Your task to perform on an android device: Search for "usb-c to usb-a" on costco.com, select the first entry, and add it to the cart. Image 0: 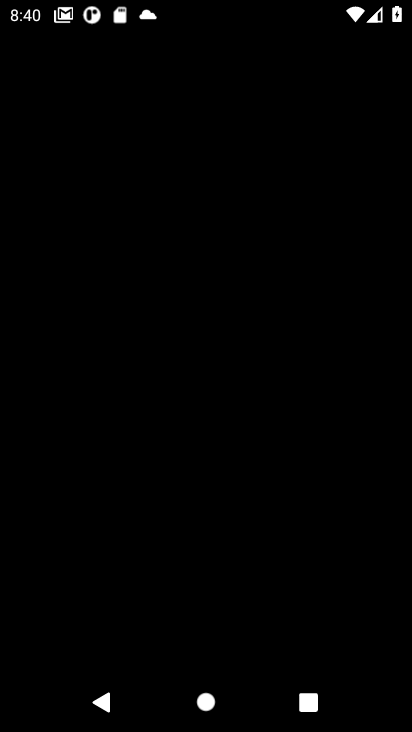
Step 0: press home button
Your task to perform on an android device: Search for "usb-c to usb-a" on costco.com, select the first entry, and add it to the cart. Image 1: 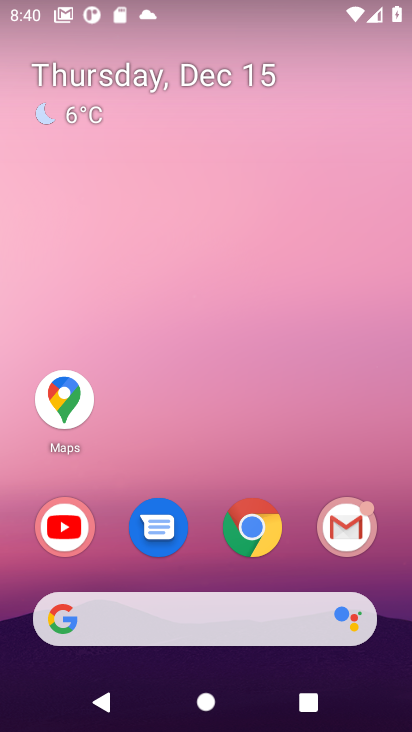
Step 1: click (238, 533)
Your task to perform on an android device: Search for "usb-c to usb-a" on costco.com, select the first entry, and add it to the cart. Image 2: 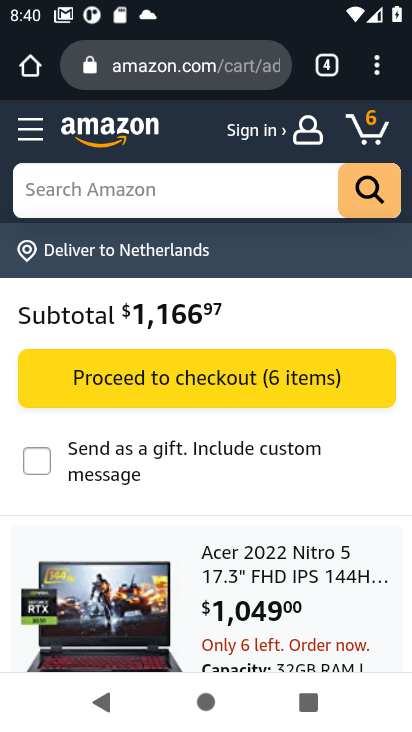
Step 2: click (141, 187)
Your task to perform on an android device: Search for "usb-c to usb-a" on costco.com, select the first entry, and add it to the cart. Image 3: 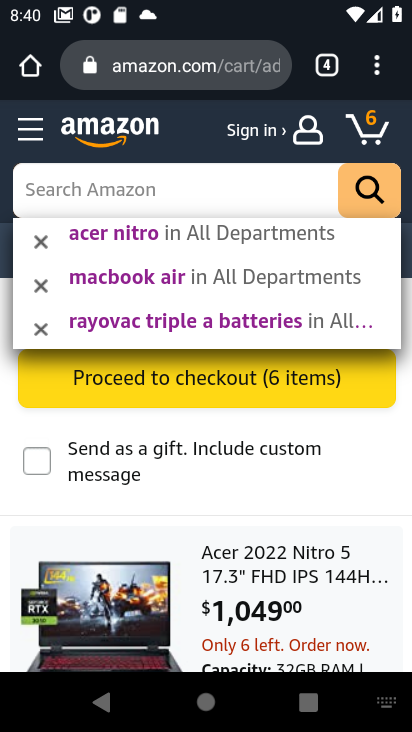
Step 3: click (204, 42)
Your task to perform on an android device: Search for "usb-c to usb-a" on costco.com, select the first entry, and add it to the cart. Image 4: 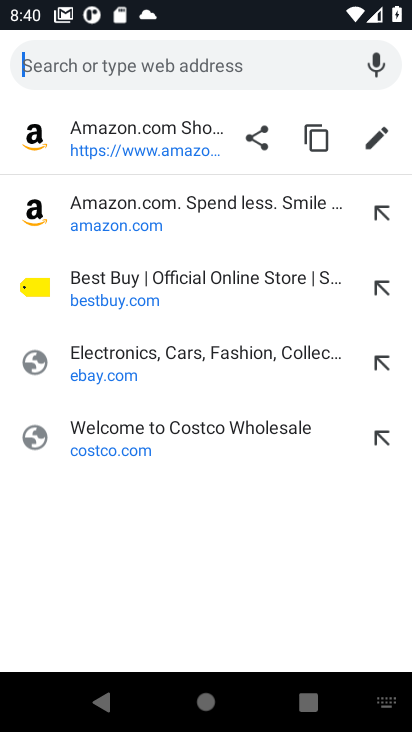
Step 4: type "costco"
Your task to perform on an android device: Search for "usb-c to usb-a" on costco.com, select the first entry, and add it to the cart. Image 5: 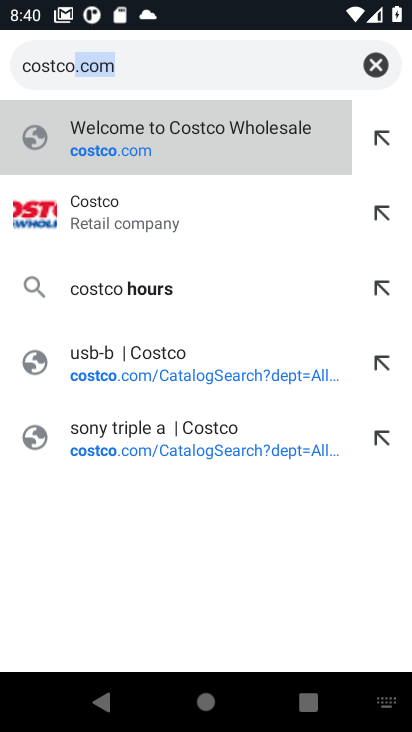
Step 5: click (189, 130)
Your task to perform on an android device: Search for "usb-c to usb-a" on costco.com, select the first entry, and add it to the cart. Image 6: 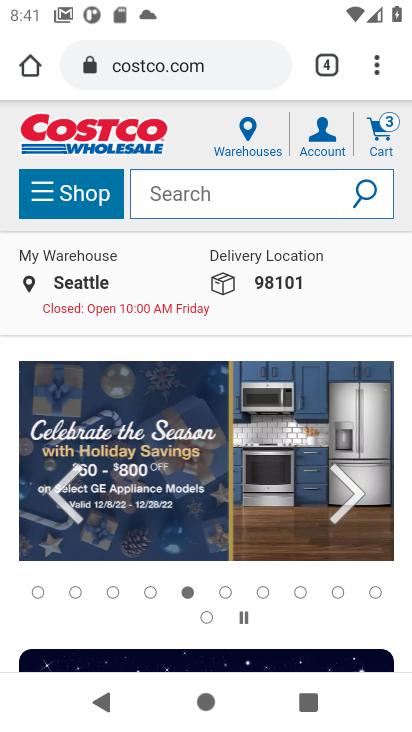
Step 6: click (143, 192)
Your task to perform on an android device: Search for "usb-c to usb-a" on costco.com, select the first entry, and add it to the cart. Image 7: 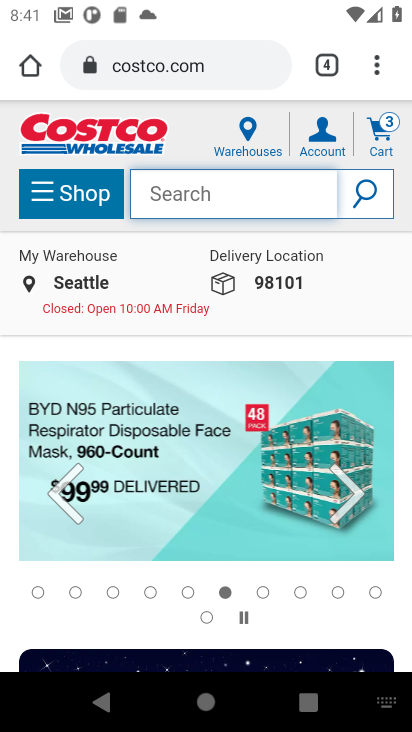
Step 7: type "usb-c to usb-a"
Your task to perform on an android device: Search for "usb-c to usb-a" on costco.com, select the first entry, and add it to the cart. Image 8: 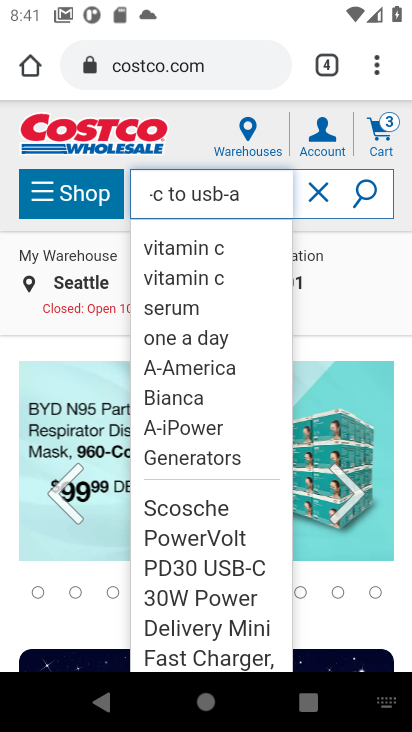
Step 8: click (377, 198)
Your task to perform on an android device: Search for "usb-c to usb-a" on costco.com, select the first entry, and add it to the cart. Image 9: 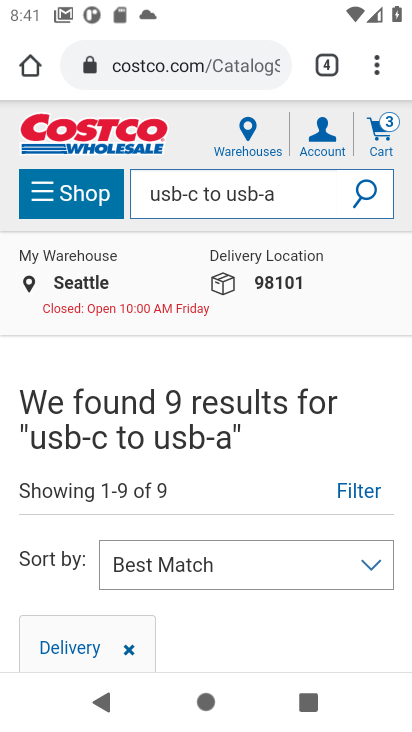
Step 9: drag from (252, 638) to (265, 341)
Your task to perform on an android device: Search for "usb-c to usb-a" on costco.com, select the first entry, and add it to the cart. Image 10: 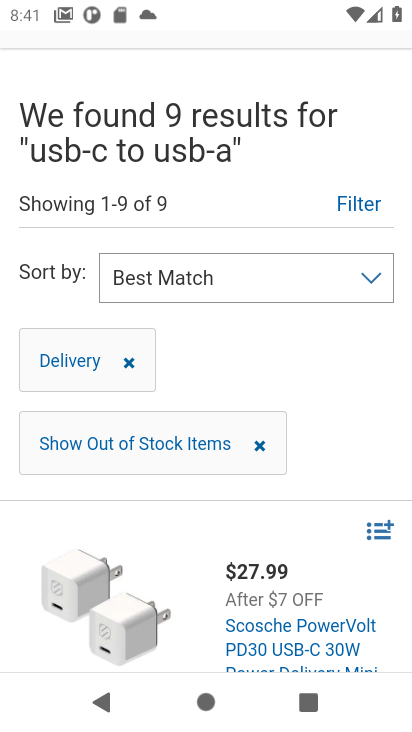
Step 10: drag from (247, 621) to (287, 221)
Your task to perform on an android device: Search for "usb-c to usb-a" on costco.com, select the first entry, and add it to the cart. Image 11: 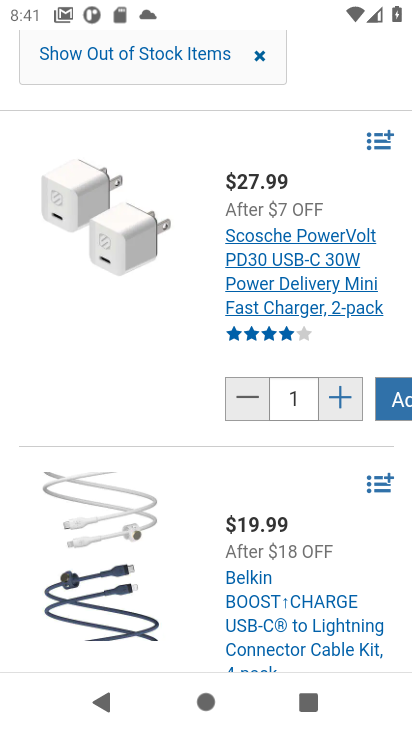
Step 11: drag from (376, 557) to (343, 202)
Your task to perform on an android device: Search for "usb-c to usb-a" on costco.com, select the first entry, and add it to the cart. Image 12: 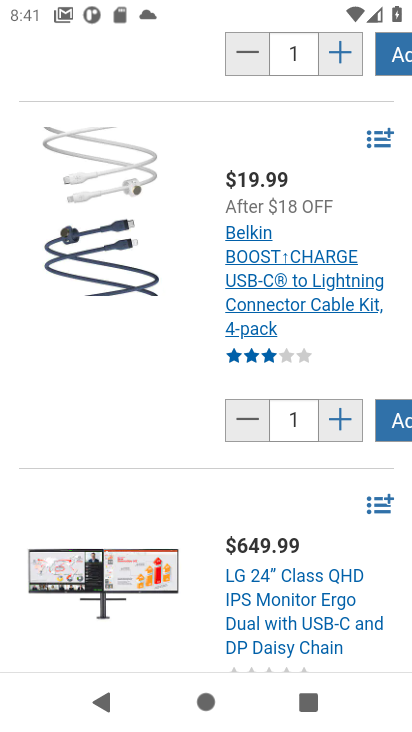
Step 12: click (397, 415)
Your task to perform on an android device: Search for "usb-c to usb-a" on costco.com, select the first entry, and add it to the cart. Image 13: 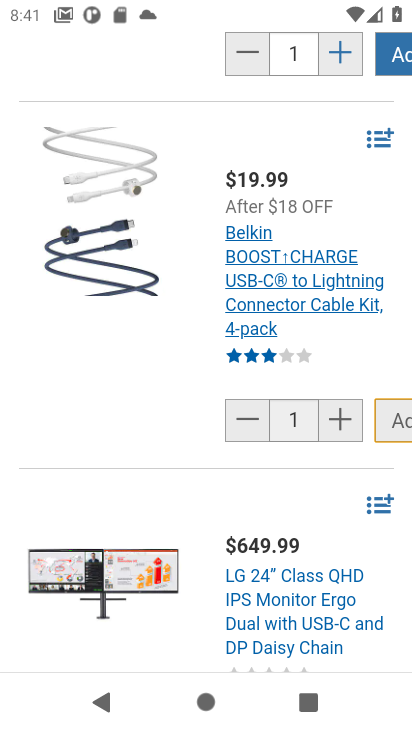
Step 13: task complete